Your task to perform on an android device: Open Google Maps and go to "Timeline" Image 0: 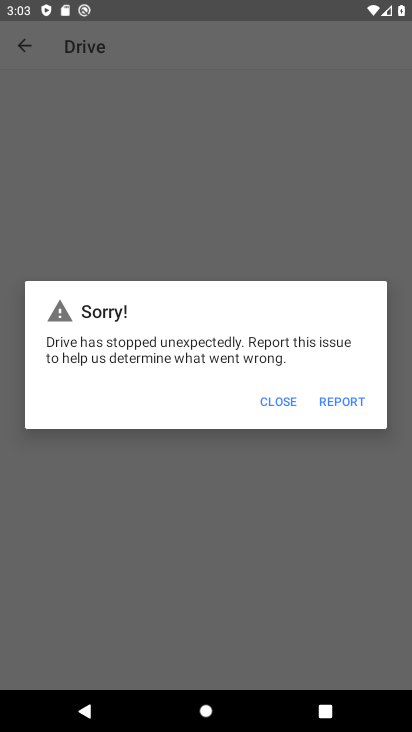
Step 0: press home button
Your task to perform on an android device: Open Google Maps and go to "Timeline" Image 1: 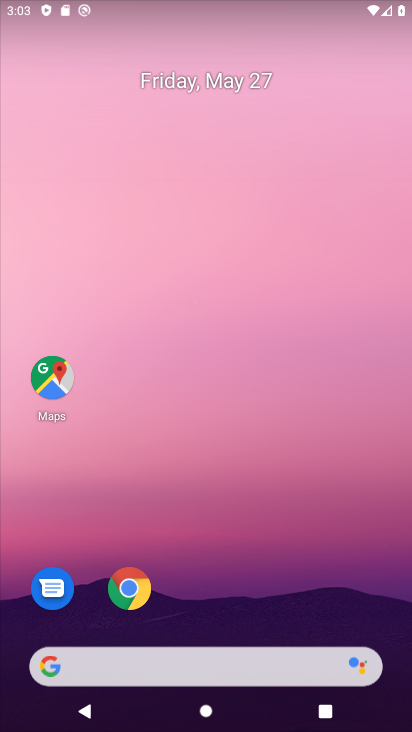
Step 1: click (55, 371)
Your task to perform on an android device: Open Google Maps and go to "Timeline" Image 2: 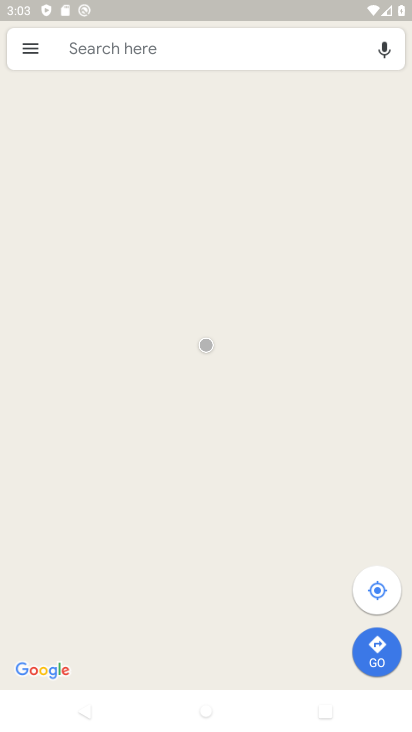
Step 2: click (24, 60)
Your task to perform on an android device: Open Google Maps and go to "Timeline" Image 3: 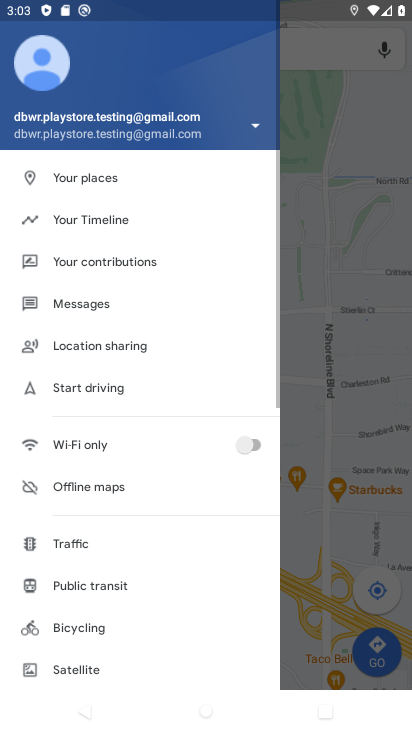
Step 3: click (141, 221)
Your task to perform on an android device: Open Google Maps and go to "Timeline" Image 4: 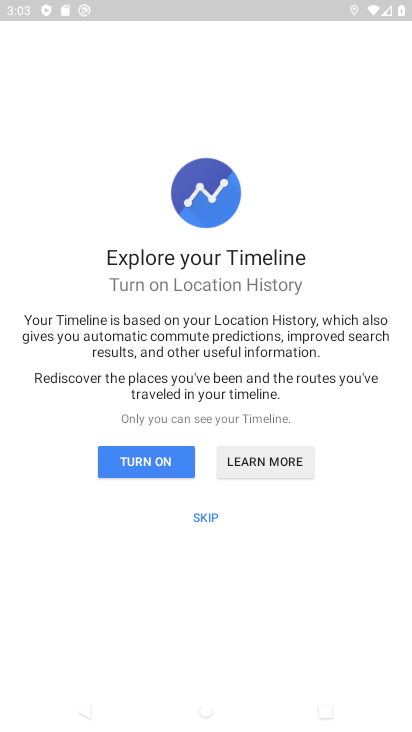
Step 4: click (204, 514)
Your task to perform on an android device: Open Google Maps and go to "Timeline" Image 5: 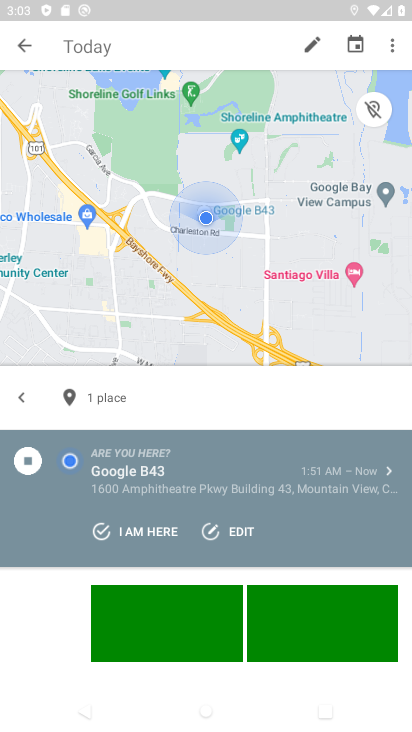
Step 5: task complete